Your task to perform on an android device: Go to Maps Image 0: 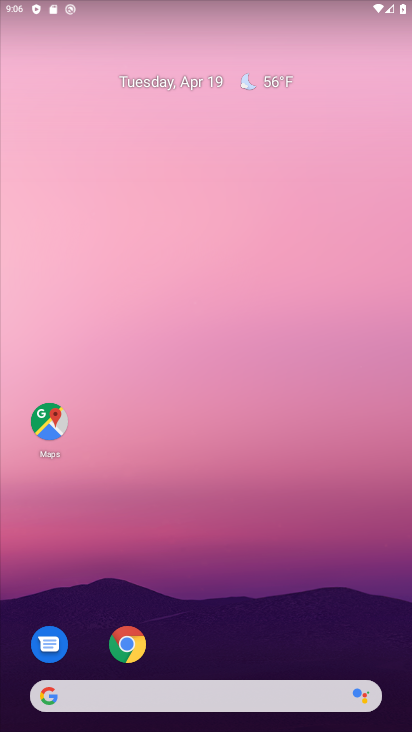
Step 0: click (48, 429)
Your task to perform on an android device: Go to Maps Image 1: 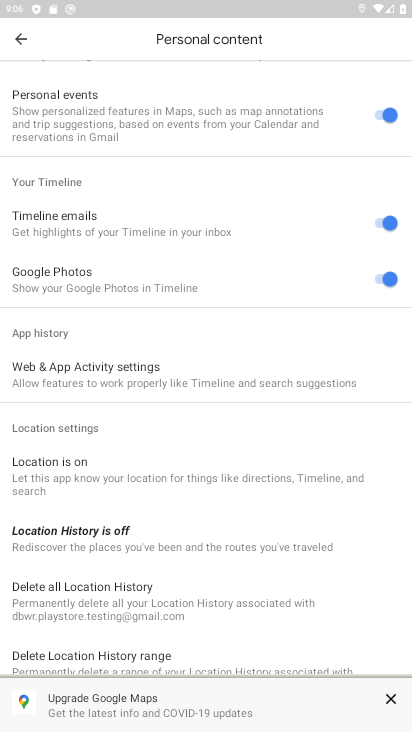
Step 1: click (25, 37)
Your task to perform on an android device: Go to Maps Image 2: 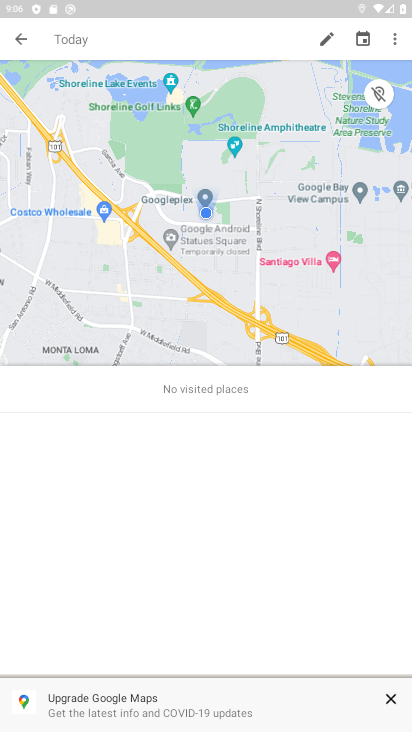
Step 2: task complete